Your task to perform on an android device: turn off picture-in-picture Image 0: 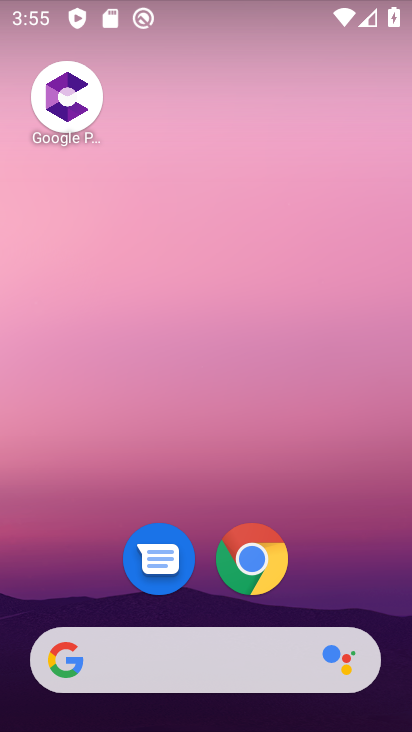
Step 0: click (258, 568)
Your task to perform on an android device: turn off picture-in-picture Image 1: 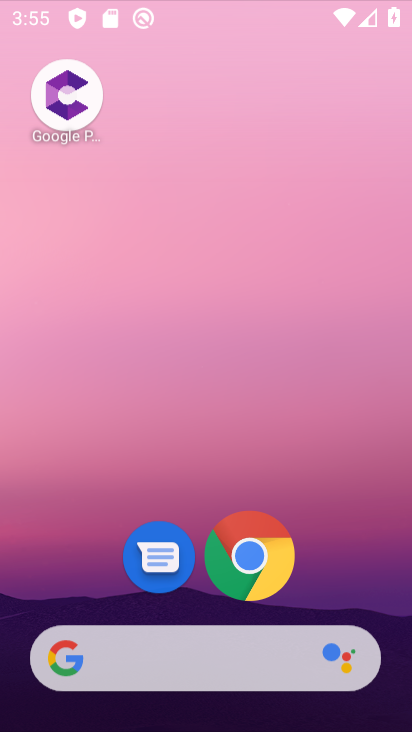
Step 1: press home button
Your task to perform on an android device: turn off picture-in-picture Image 2: 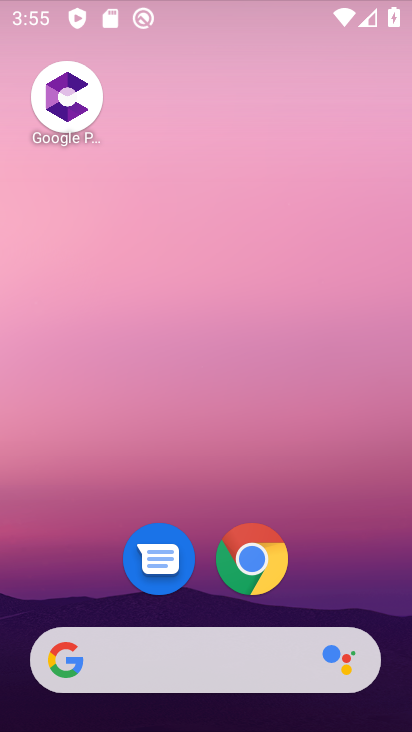
Step 2: click (180, 42)
Your task to perform on an android device: turn off picture-in-picture Image 3: 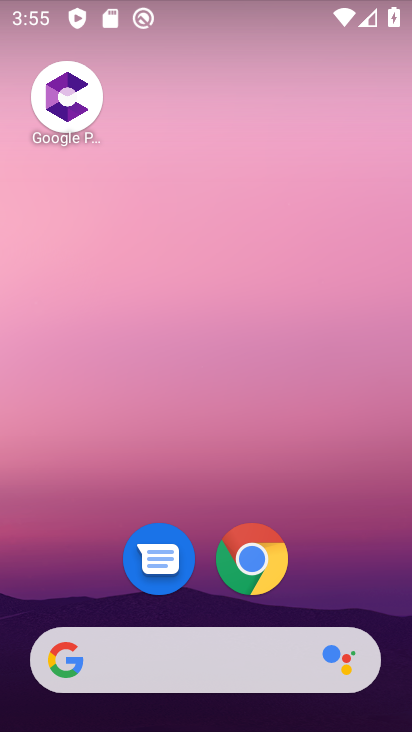
Step 3: drag from (325, 298) to (160, 15)
Your task to perform on an android device: turn off picture-in-picture Image 4: 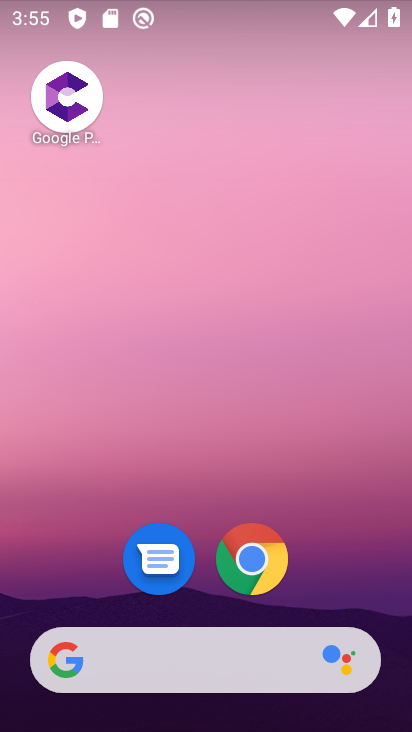
Step 4: drag from (337, 406) to (171, 0)
Your task to perform on an android device: turn off picture-in-picture Image 5: 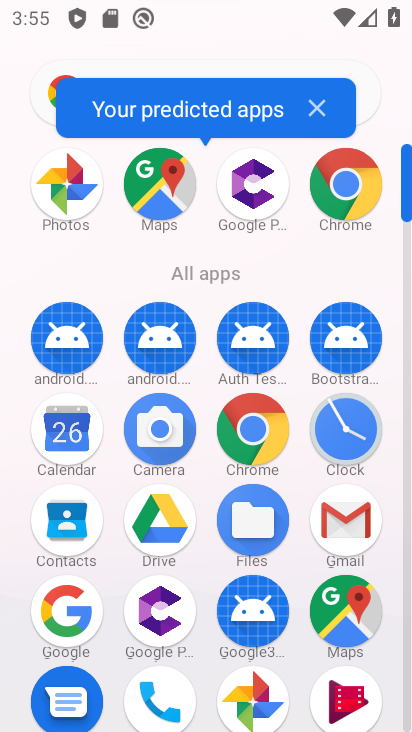
Step 5: drag from (215, 298) to (214, 117)
Your task to perform on an android device: turn off picture-in-picture Image 6: 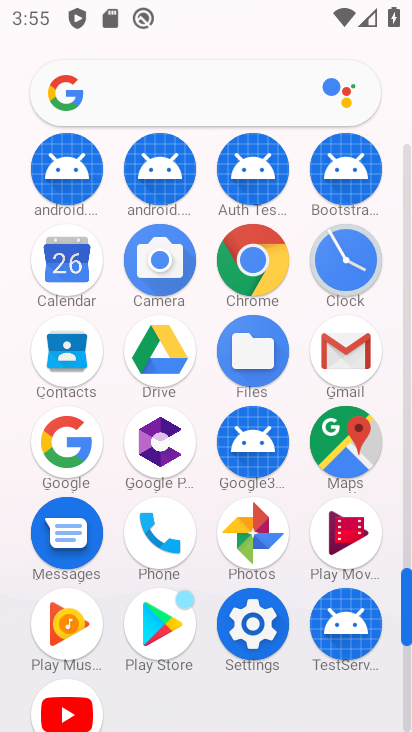
Step 6: click (255, 634)
Your task to perform on an android device: turn off picture-in-picture Image 7: 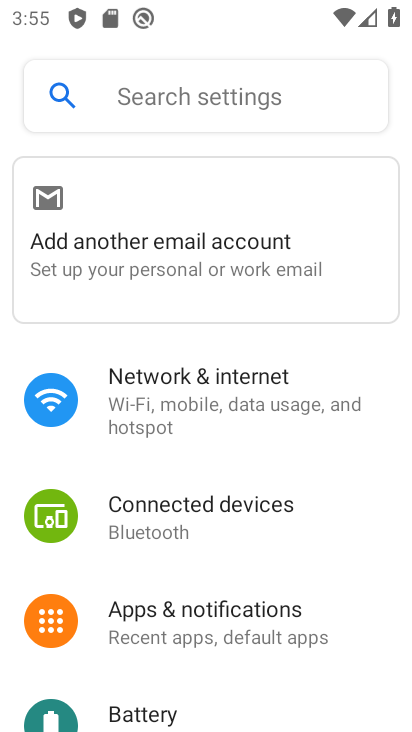
Step 7: click (236, 601)
Your task to perform on an android device: turn off picture-in-picture Image 8: 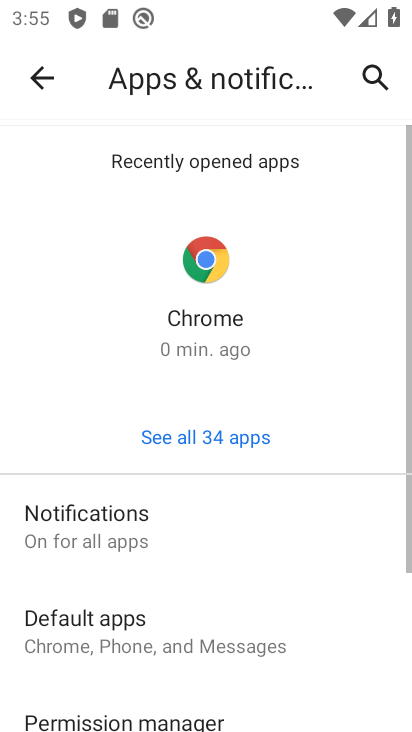
Step 8: drag from (244, 606) to (244, 84)
Your task to perform on an android device: turn off picture-in-picture Image 9: 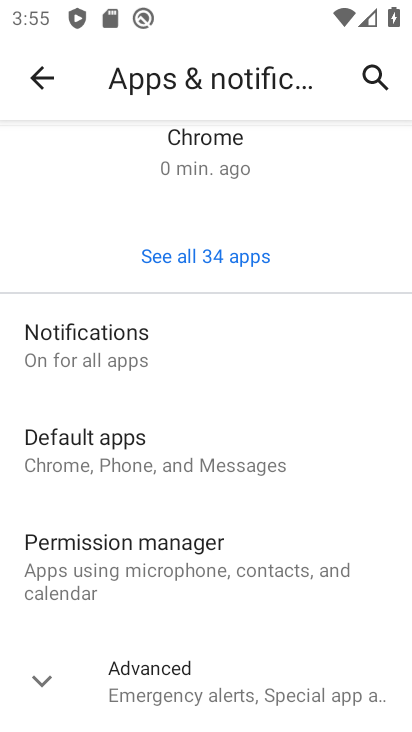
Step 9: click (232, 681)
Your task to perform on an android device: turn off picture-in-picture Image 10: 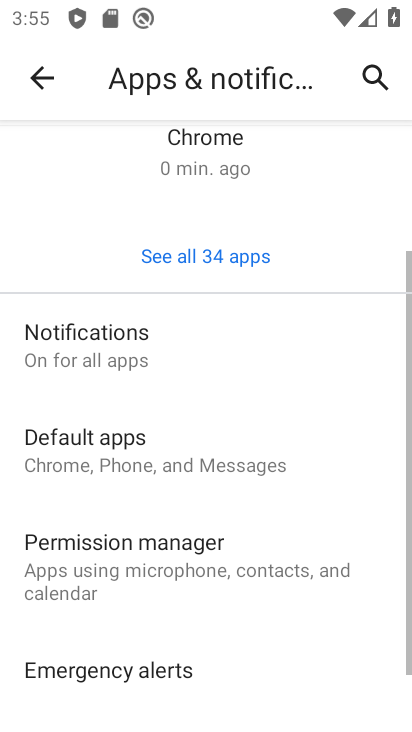
Step 10: drag from (283, 605) to (217, 126)
Your task to perform on an android device: turn off picture-in-picture Image 11: 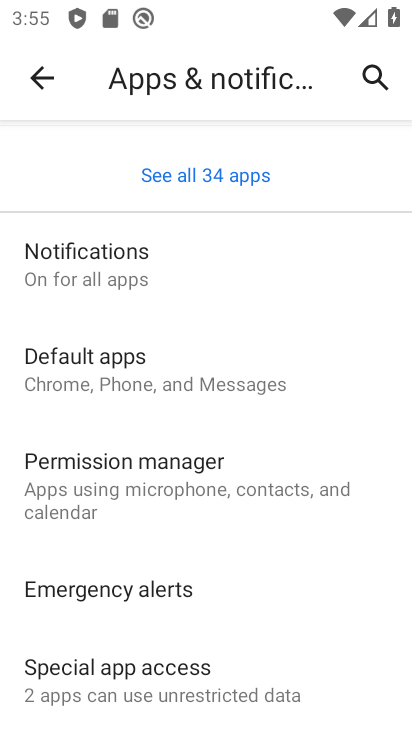
Step 11: click (151, 678)
Your task to perform on an android device: turn off picture-in-picture Image 12: 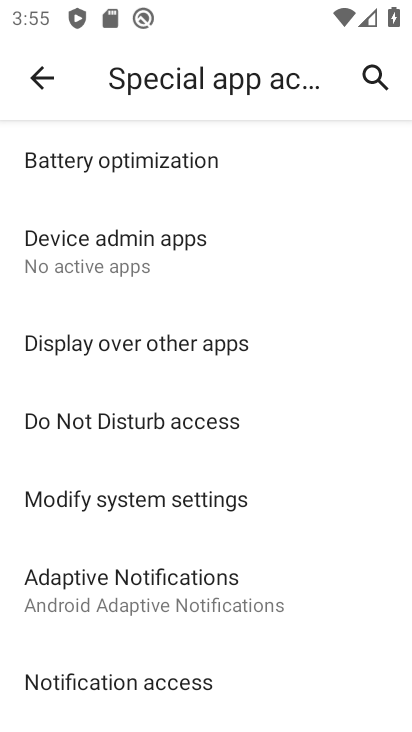
Step 12: drag from (228, 651) to (239, 261)
Your task to perform on an android device: turn off picture-in-picture Image 13: 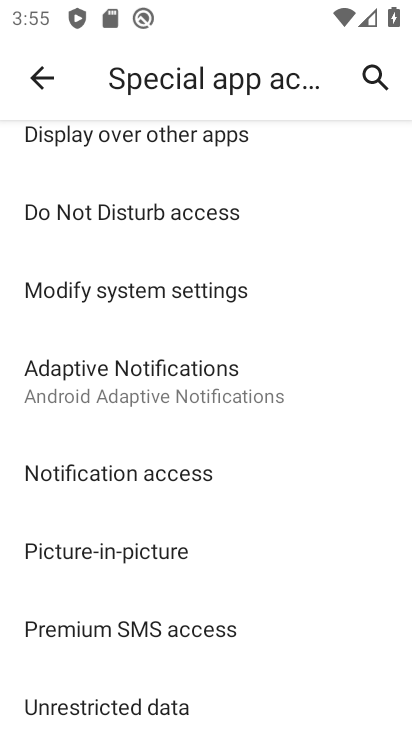
Step 13: click (136, 553)
Your task to perform on an android device: turn off picture-in-picture Image 14: 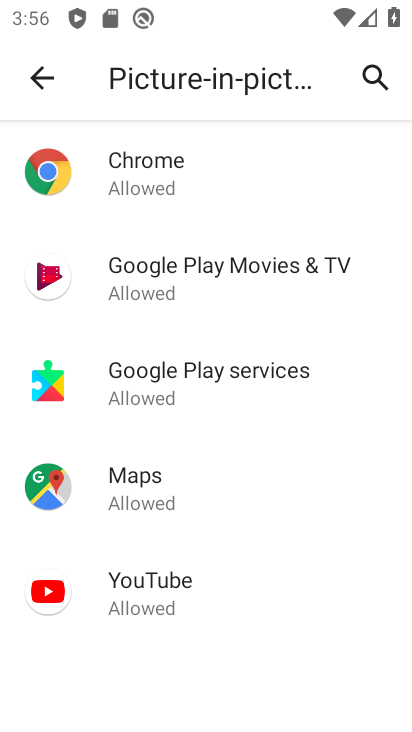
Step 14: click (234, 367)
Your task to perform on an android device: turn off picture-in-picture Image 15: 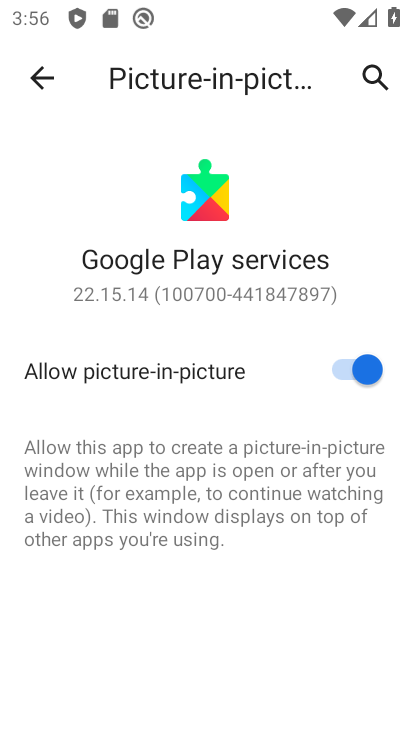
Step 15: click (360, 369)
Your task to perform on an android device: turn off picture-in-picture Image 16: 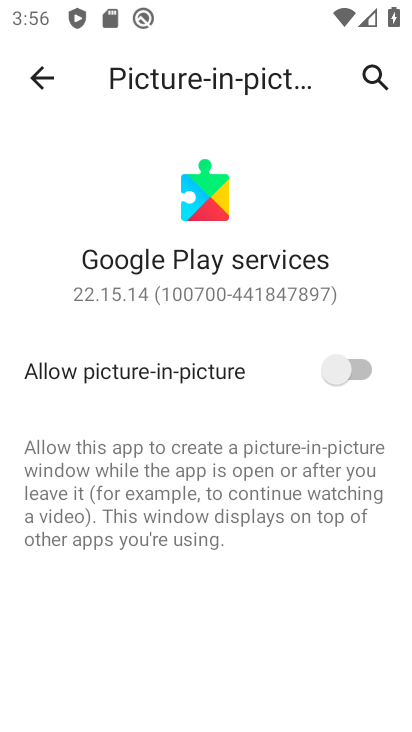
Step 16: task complete